Your task to perform on an android device: add a contact Image 0: 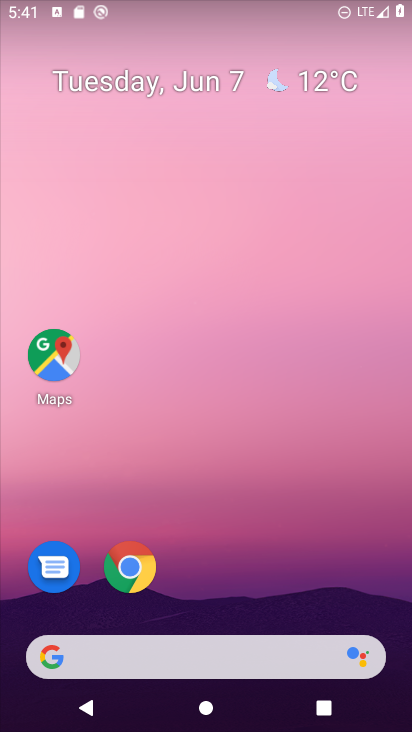
Step 0: drag from (309, 640) to (307, 10)
Your task to perform on an android device: add a contact Image 1: 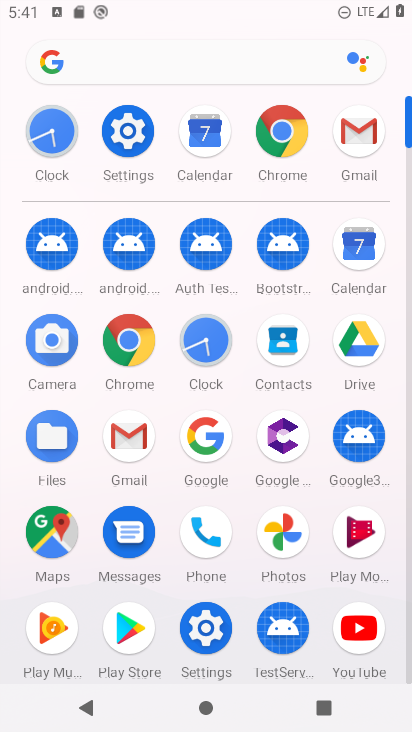
Step 1: click (289, 355)
Your task to perform on an android device: add a contact Image 2: 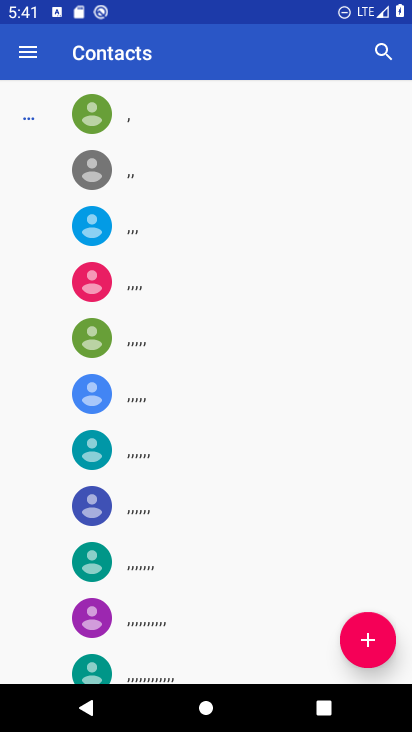
Step 2: click (374, 655)
Your task to perform on an android device: add a contact Image 3: 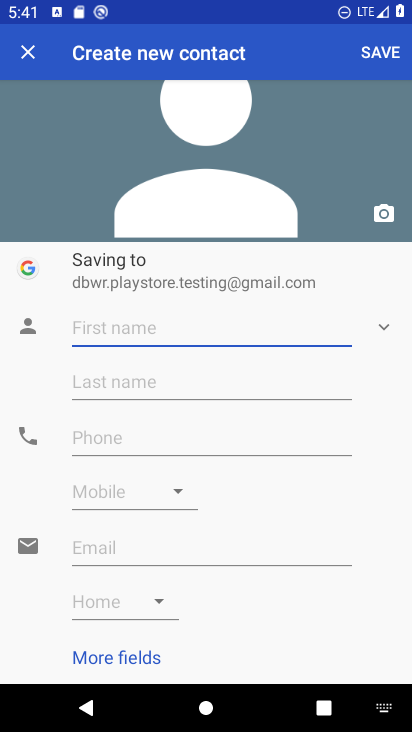
Step 3: type "hjfjfvjvj"
Your task to perform on an android device: add a contact Image 4: 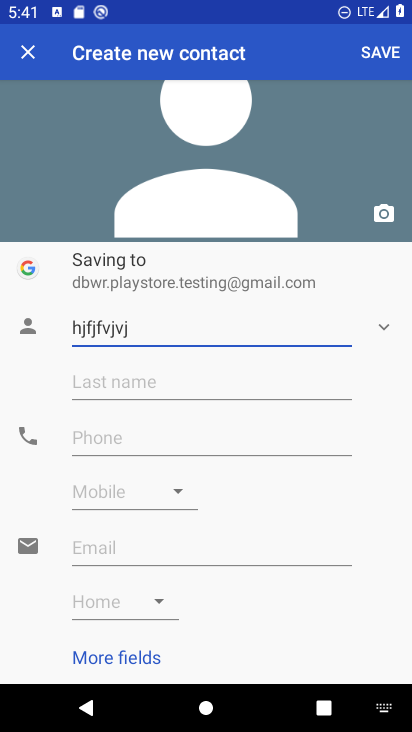
Step 4: click (137, 452)
Your task to perform on an android device: add a contact Image 5: 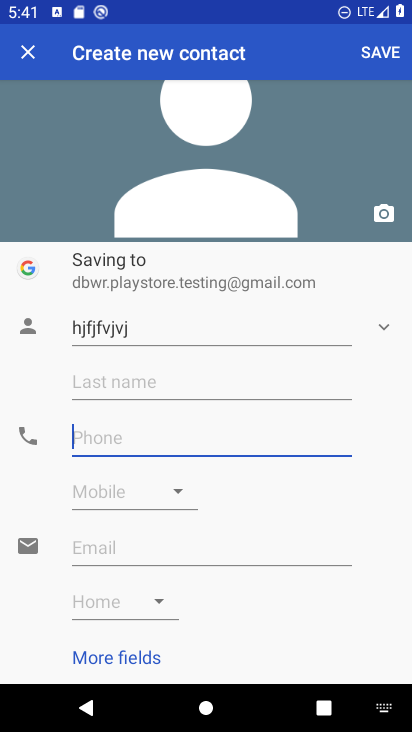
Step 5: type "98798669987"
Your task to perform on an android device: add a contact Image 6: 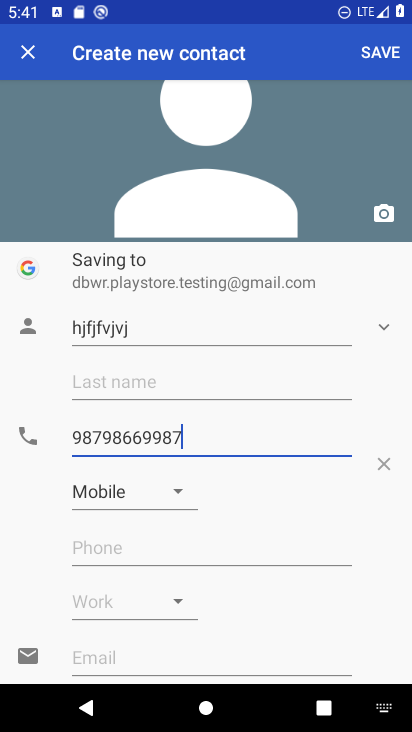
Step 6: click (385, 44)
Your task to perform on an android device: add a contact Image 7: 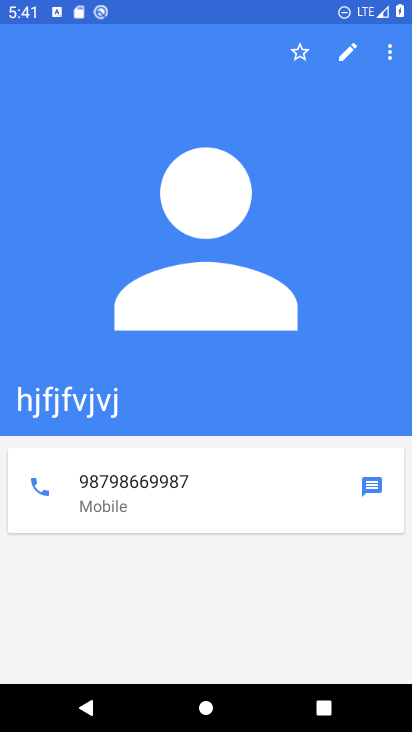
Step 7: task complete